Your task to perform on an android device: Open Amazon Image 0: 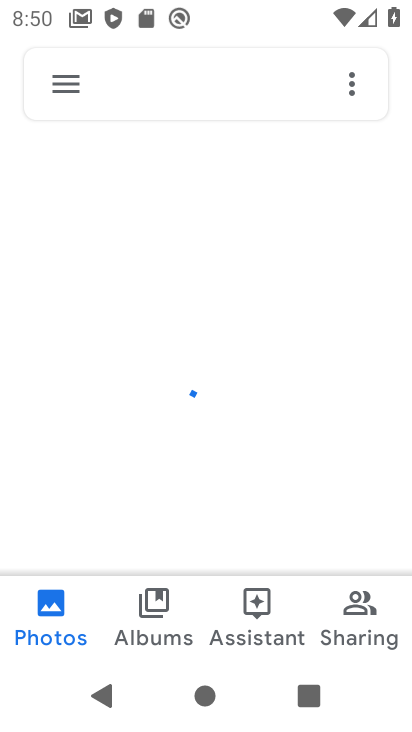
Step 0: press home button
Your task to perform on an android device: Open Amazon Image 1: 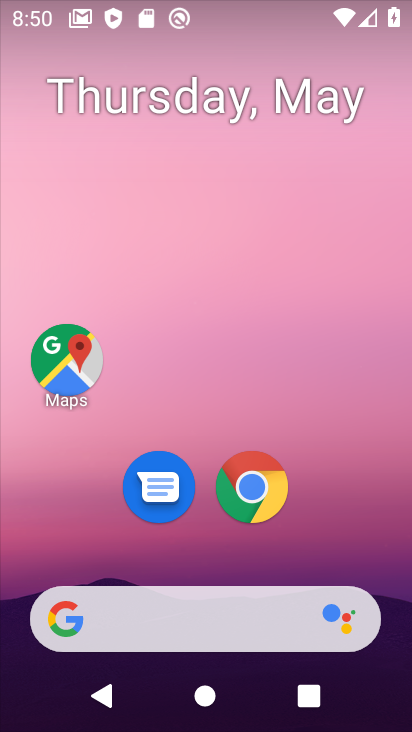
Step 1: click (260, 486)
Your task to perform on an android device: Open Amazon Image 2: 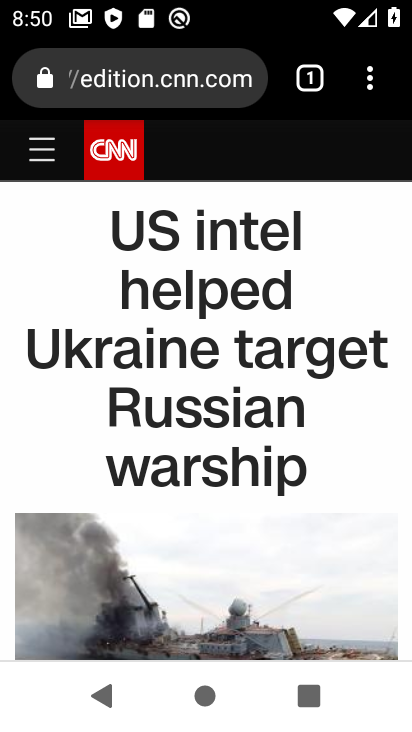
Step 2: click (308, 98)
Your task to perform on an android device: Open Amazon Image 3: 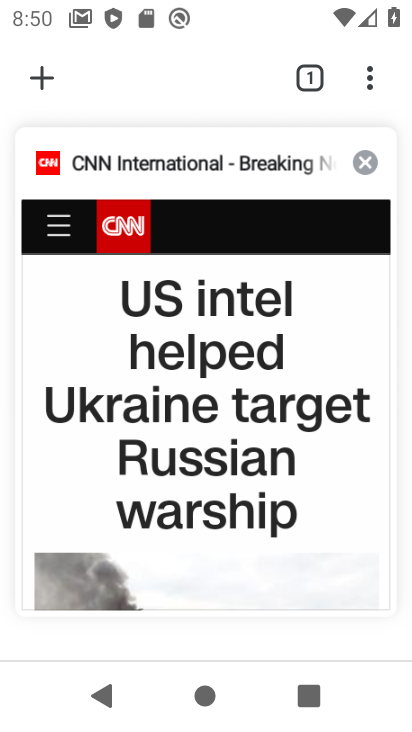
Step 3: click (47, 91)
Your task to perform on an android device: Open Amazon Image 4: 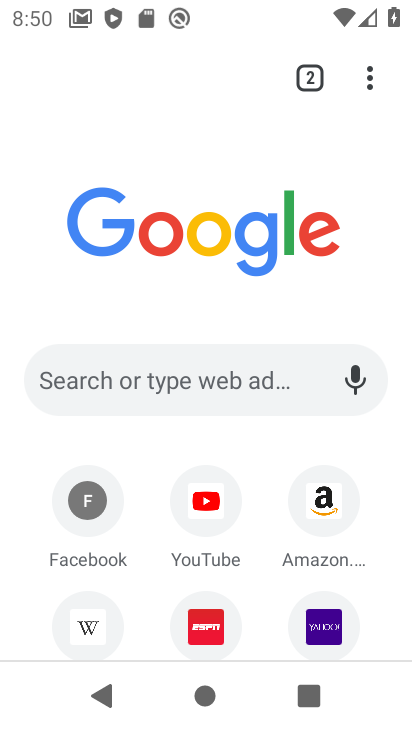
Step 4: click (315, 499)
Your task to perform on an android device: Open Amazon Image 5: 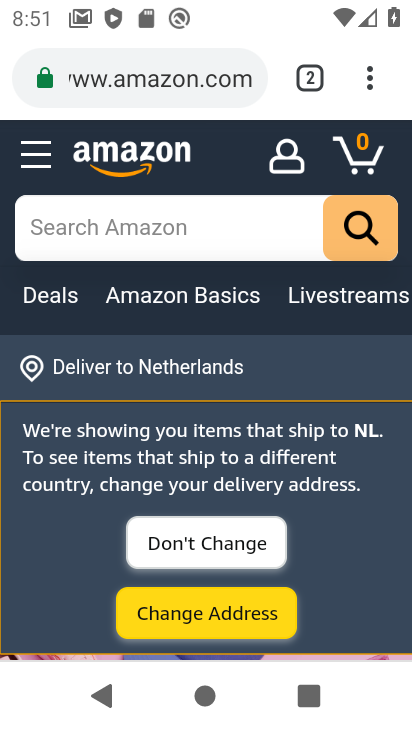
Step 5: task complete